Your task to perform on an android device: check storage Image 0: 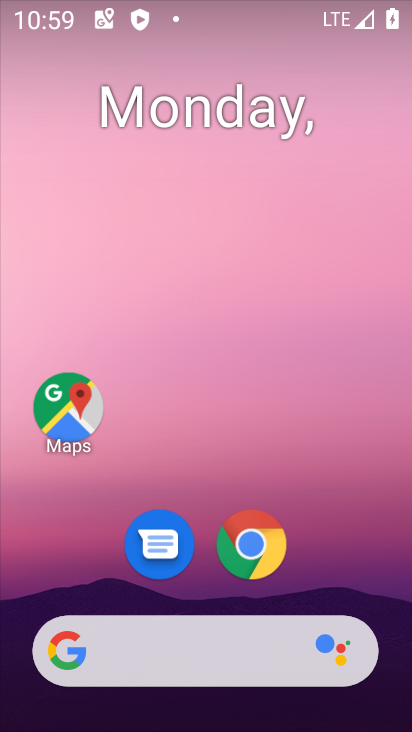
Step 0: drag from (386, 488) to (338, 186)
Your task to perform on an android device: check storage Image 1: 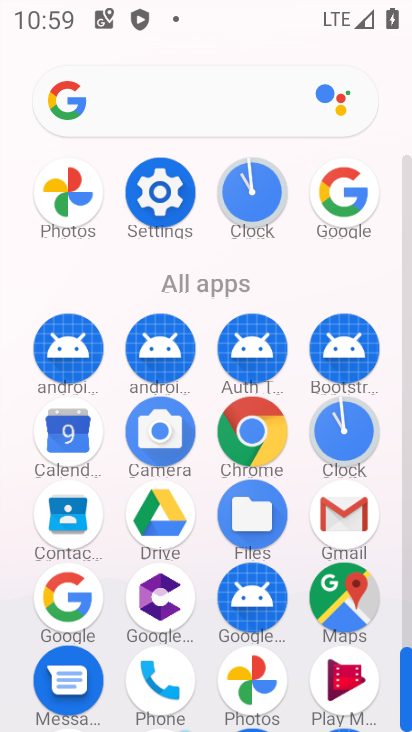
Step 1: click (149, 186)
Your task to perform on an android device: check storage Image 2: 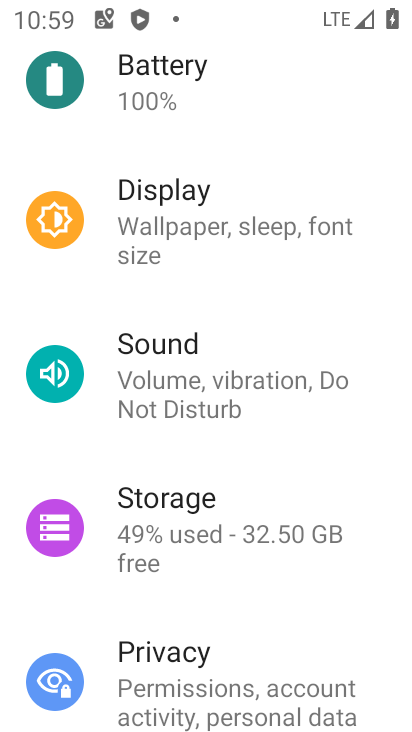
Step 2: click (120, 503)
Your task to perform on an android device: check storage Image 3: 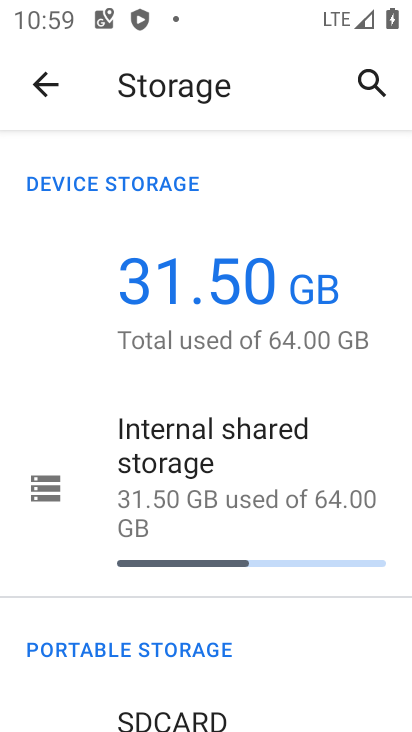
Step 3: task complete